Your task to perform on an android device: How do I get to the nearest T-Mobile Store? Image 0: 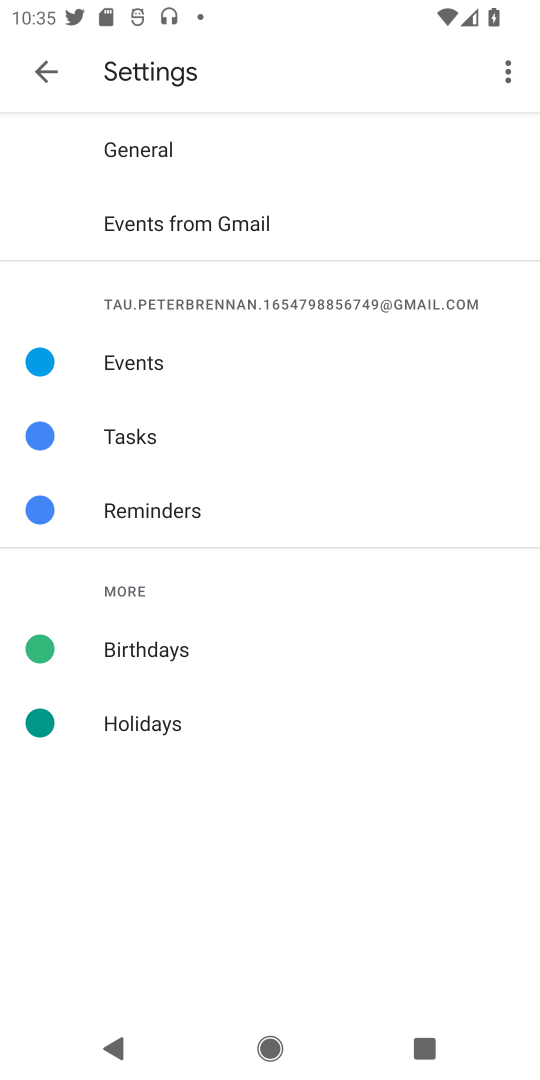
Step 0: press home button
Your task to perform on an android device: How do I get to the nearest T-Mobile Store? Image 1: 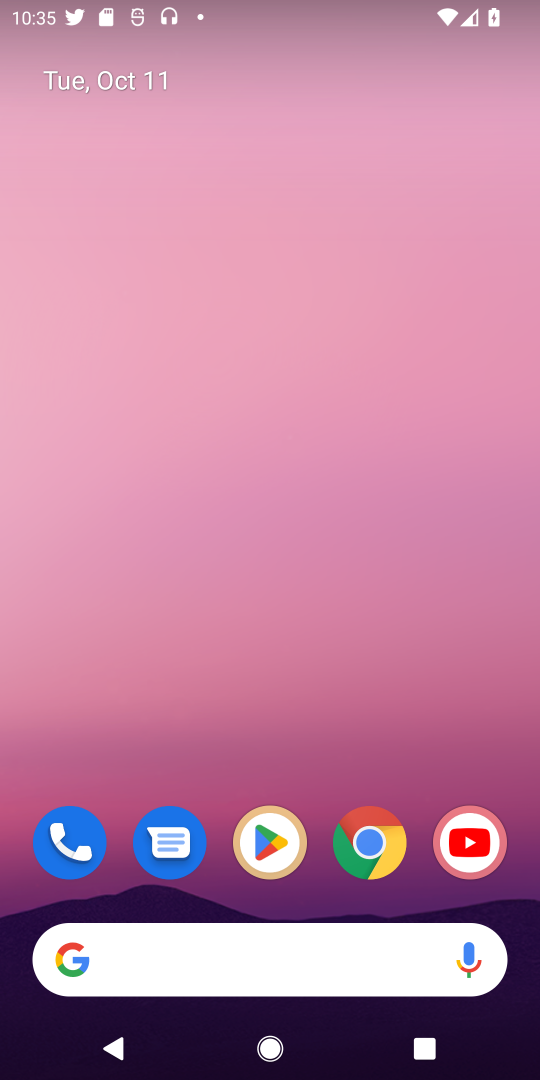
Step 1: click (383, 836)
Your task to perform on an android device: How do I get to the nearest T-Mobile Store? Image 2: 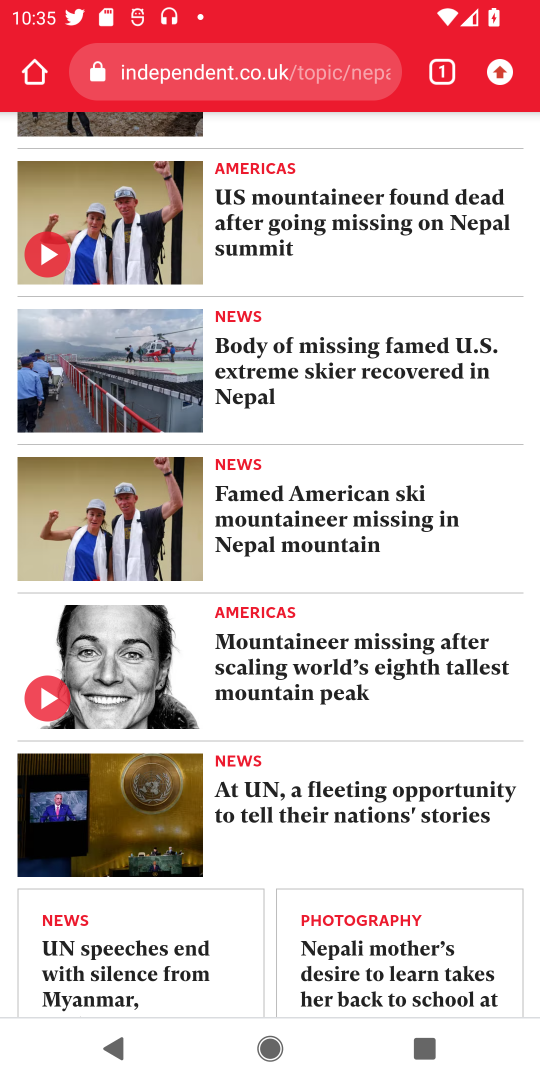
Step 2: click (212, 70)
Your task to perform on an android device: How do I get to the nearest T-Mobile Store? Image 3: 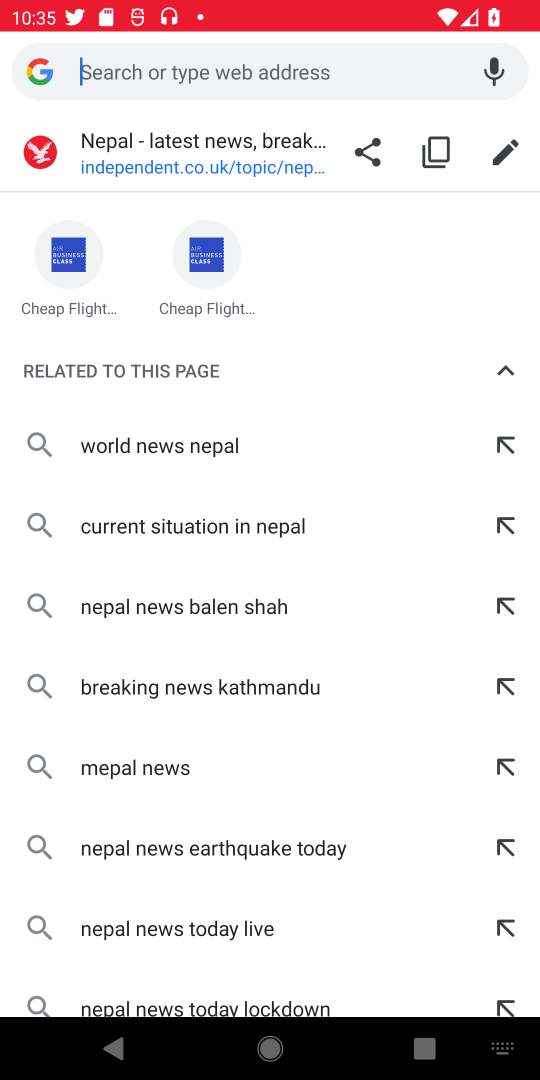
Step 3: type "how do i get nearest t mobile store"
Your task to perform on an android device: How do I get to the nearest T-Mobile Store? Image 4: 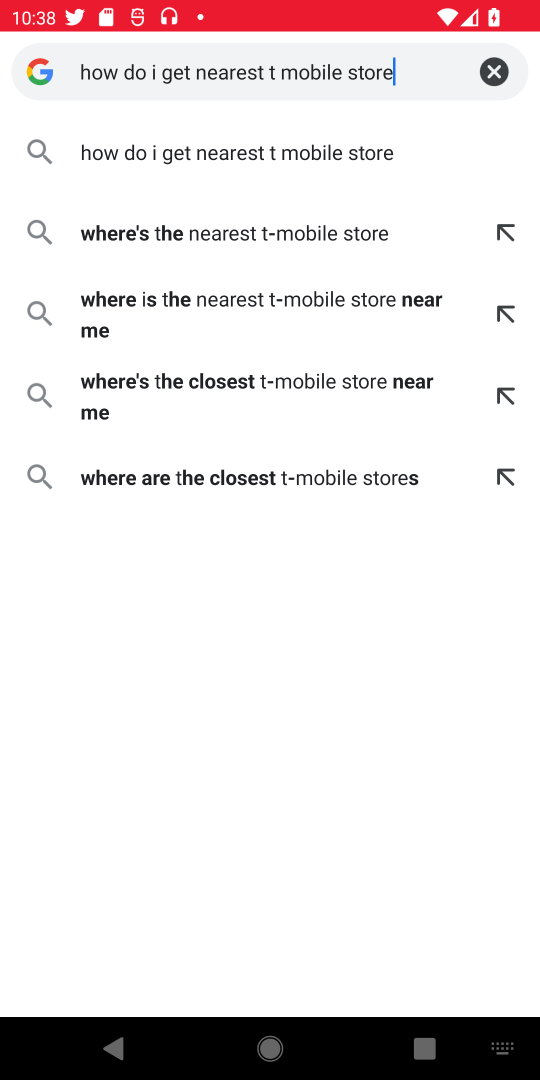
Step 4: click (309, 153)
Your task to perform on an android device: How do I get to the nearest T-Mobile Store? Image 5: 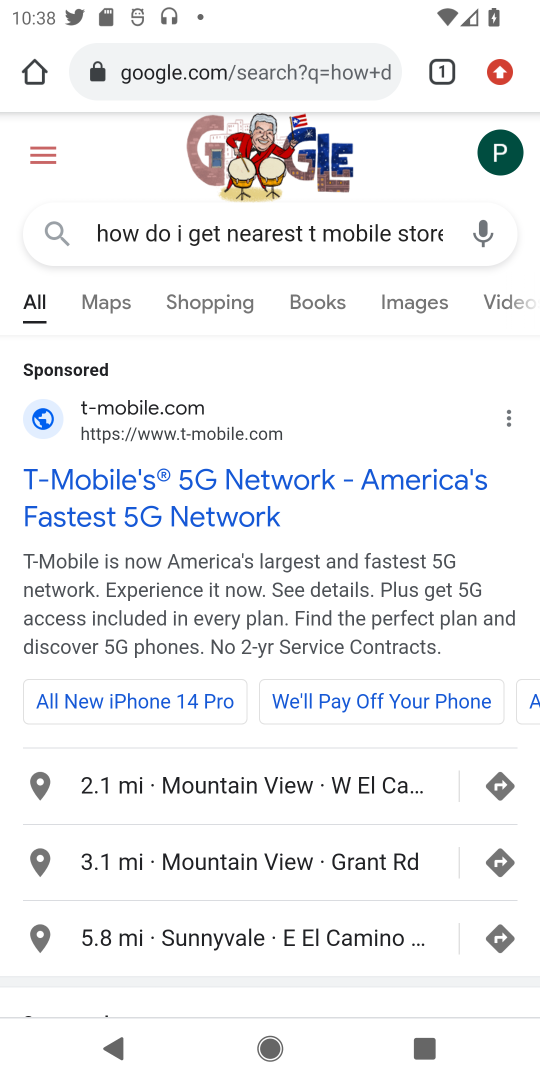
Step 5: task complete